Your task to perform on an android device: create a new album in the google photos Image 0: 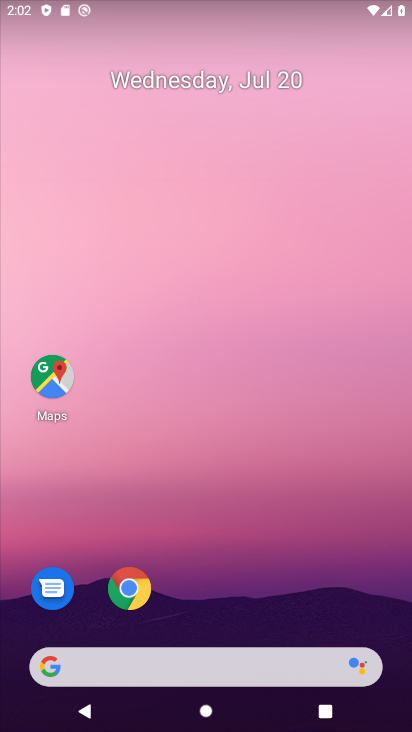
Step 0: drag from (284, 675) to (155, 174)
Your task to perform on an android device: create a new album in the google photos Image 1: 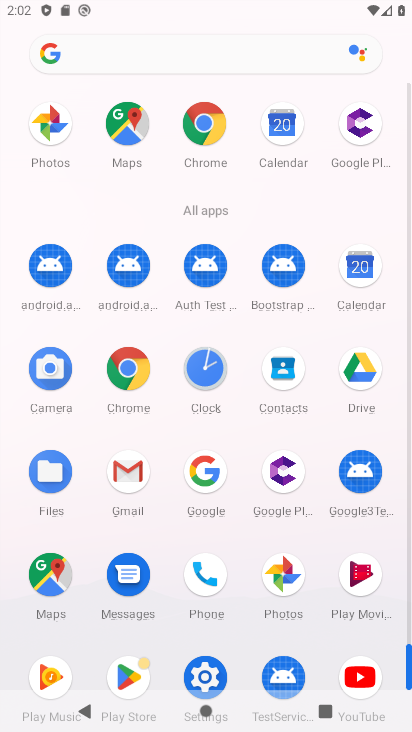
Step 1: click (292, 573)
Your task to perform on an android device: create a new album in the google photos Image 2: 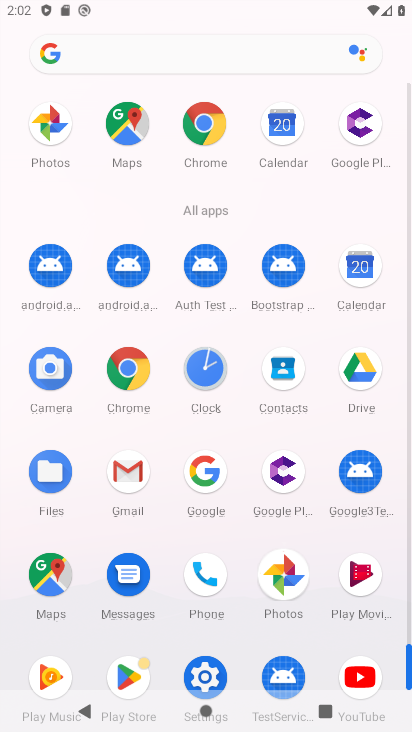
Step 2: click (289, 572)
Your task to perform on an android device: create a new album in the google photos Image 3: 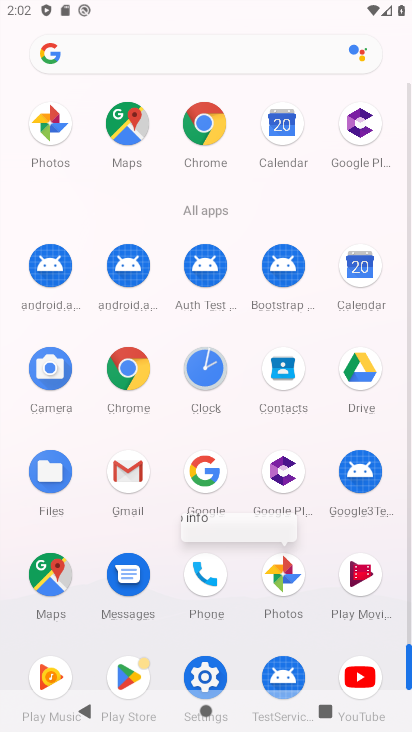
Step 3: click (287, 575)
Your task to perform on an android device: create a new album in the google photos Image 4: 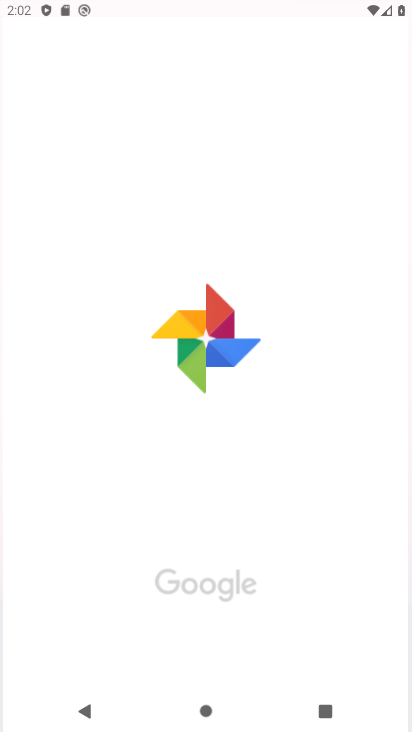
Step 4: click (285, 577)
Your task to perform on an android device: create a new album in the google photos Image 5: 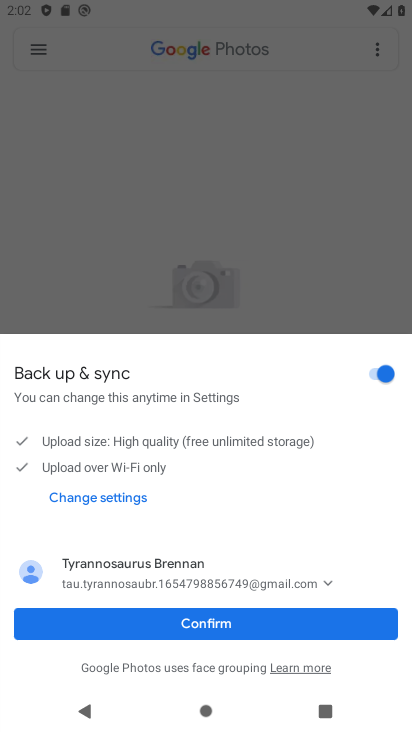
Step 5: click (222, 618)
Your task to perform on an android device: create a new album in the google photos Image 6: 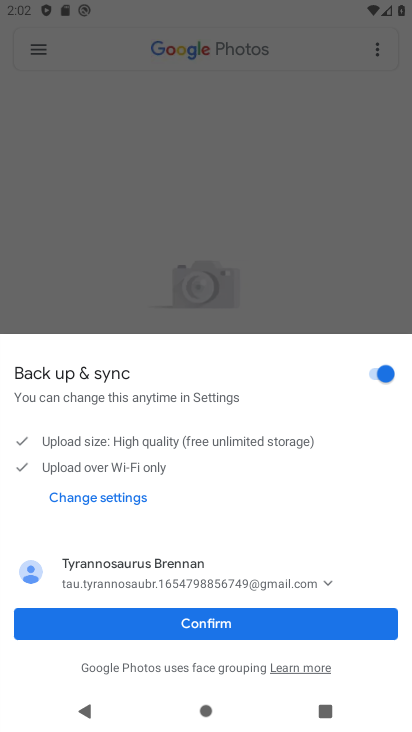
Step 6: click (222, 618)
Your task to perform on an android device: create a new album in the google photos Image 7: 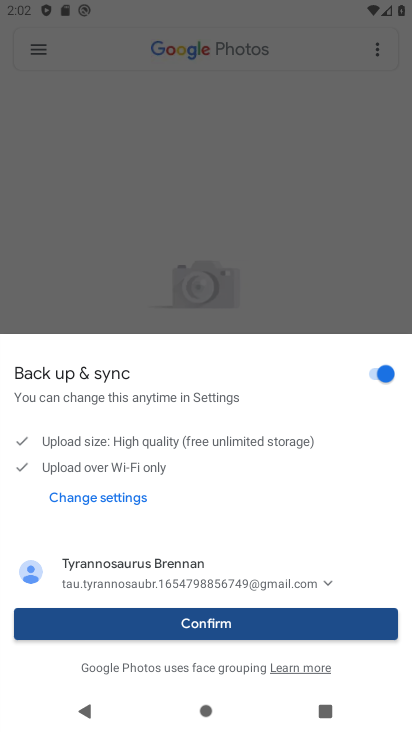
Step 7: click (222, 618)
Your task to perform on an android device: create a new album in the google photos Image 8: 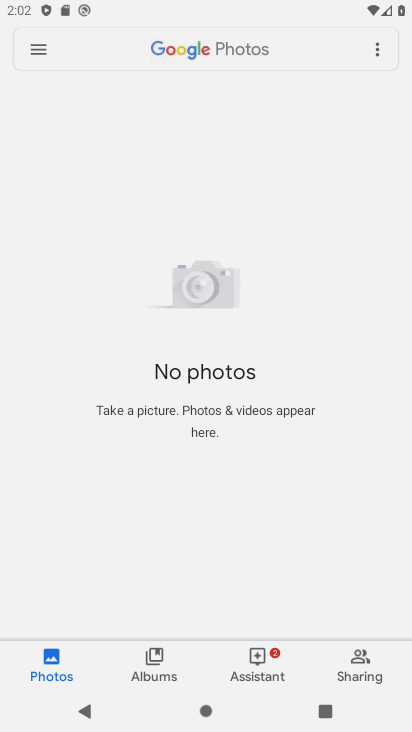
Step 8: click (227, 624)
Your task to perform on an android device: create a new album in the google photos Image 9: 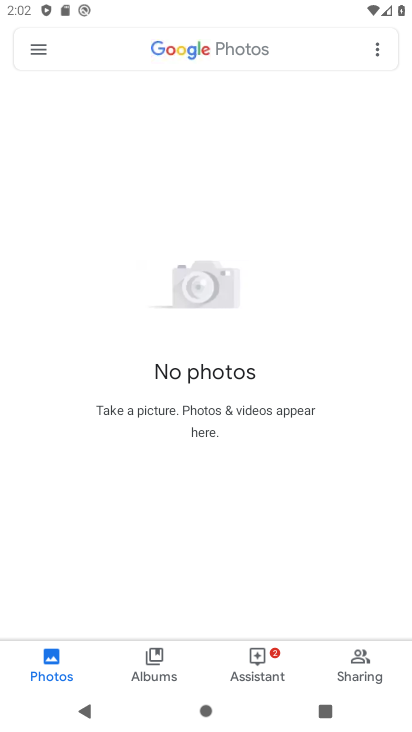
Step 9: click (230, 636)
Your task to perform on an android device: create a new album in the google photos Image 10: 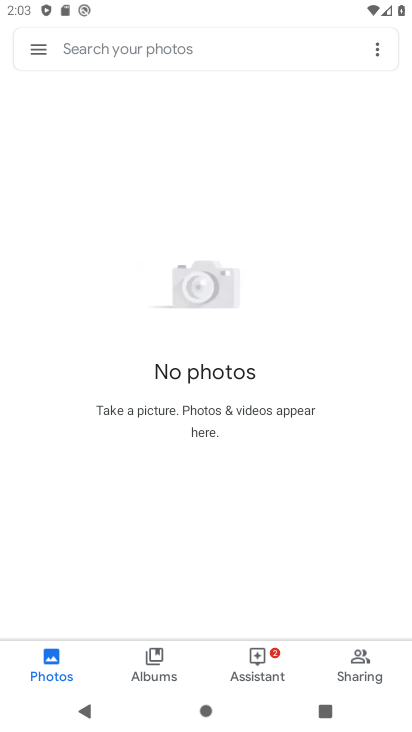
Step 10: task complete